Your task to perform on an android device: turn off improve location accuracy Image 0: 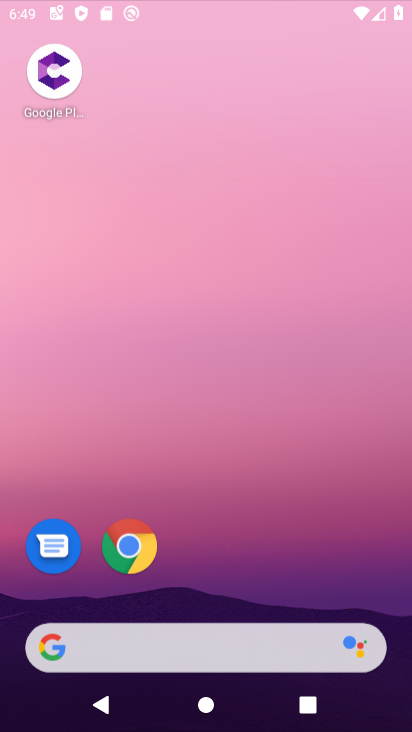
Step 0: click (191, 81)
Your task to perform on an android device: turn off improve location accuracy Image 1: 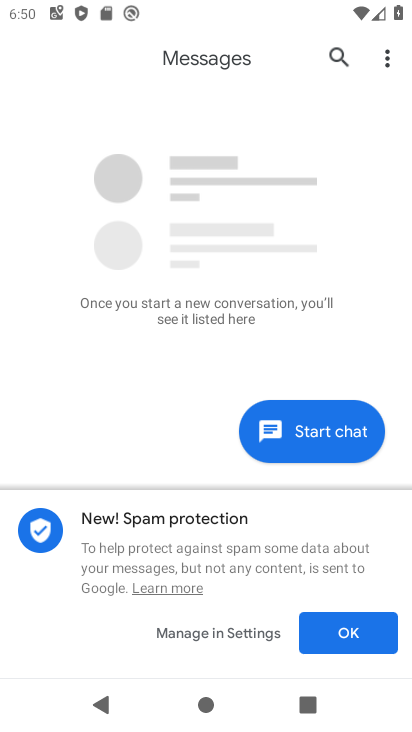
Step 1: press home button
Your task to perform on an android device: turn off improve location accuracy Image 2: 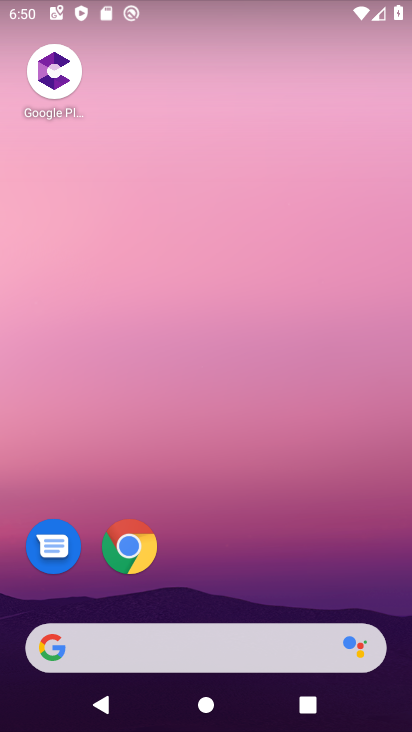
Step 2: drag from (252, 420) to (196, 37)
Your task to perform on an android device: turn off improve location accuracy Image 3: 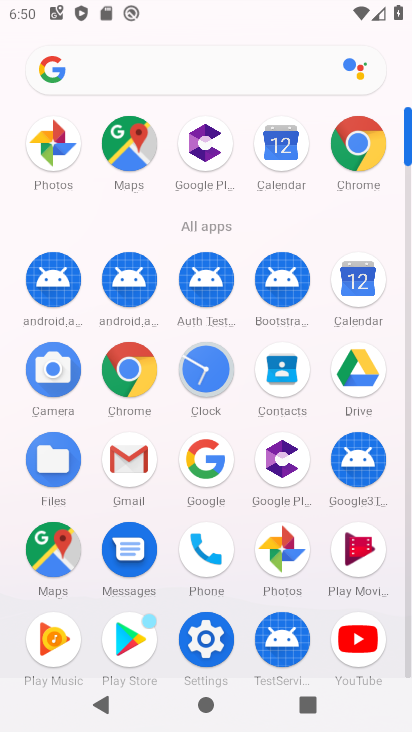
Step 3: click (205, 641)
Your task to perform on an android device: turn off improve location accuracy Image 4: 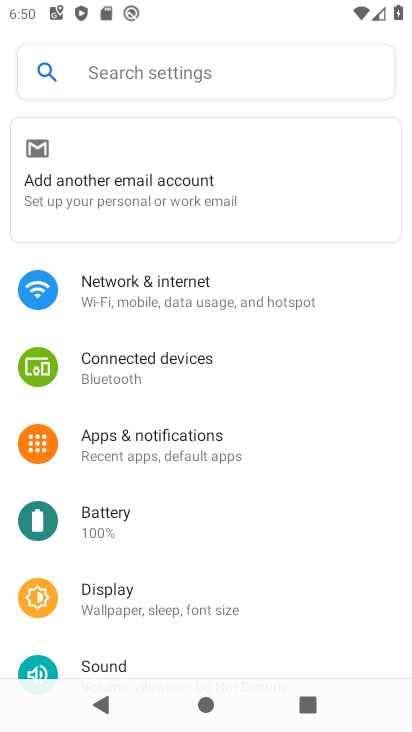
Step 4: drag from (179, 556) to (152, 244)
Your task to perform on an android device: turn off improve location accuracy Image 5: 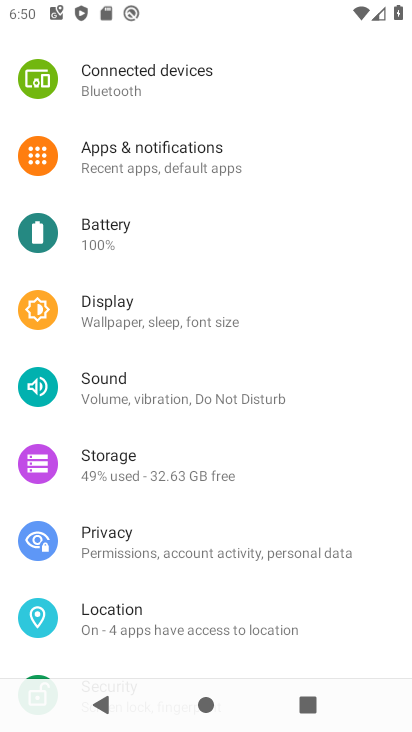
Step 5: click (115, 609)
Your task to perform on an android device: turn off improve location accuracy Image 6: 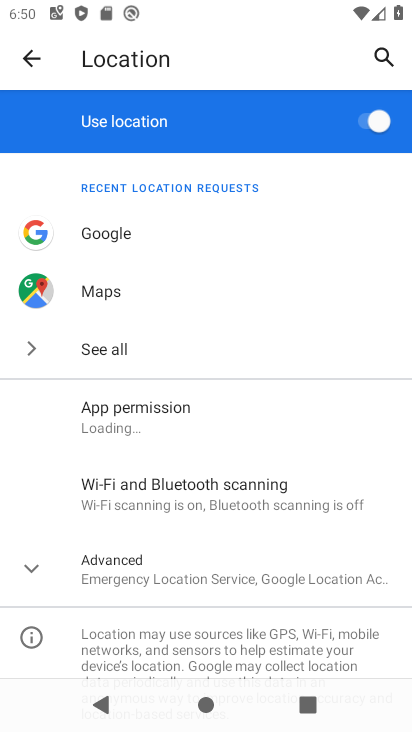
Step 6: click (33, 570)
Your task to perform on an android device: turn off improve location accuracy Image 7: 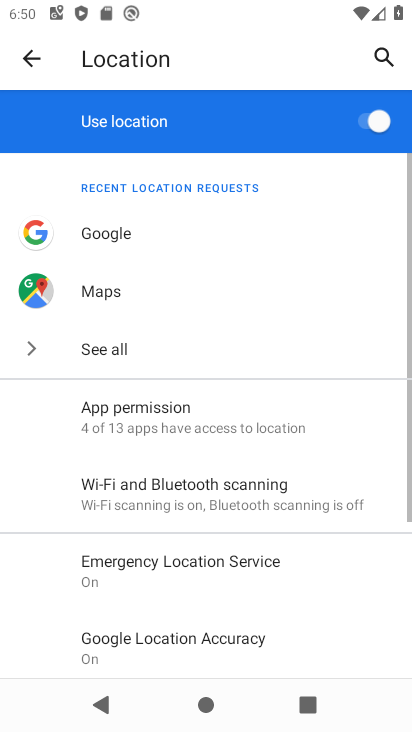
Step 7: drag from (224, 585) to (197, 432)
Your task to perform on an android device: turn off improve location accuracy Image 8: 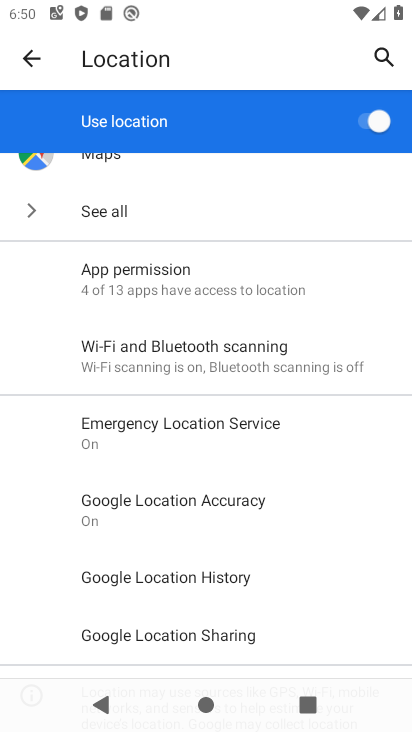
Step 8: click (196, 494)
Your task to perform on an android device: turn off improve location accuracy Image 9: 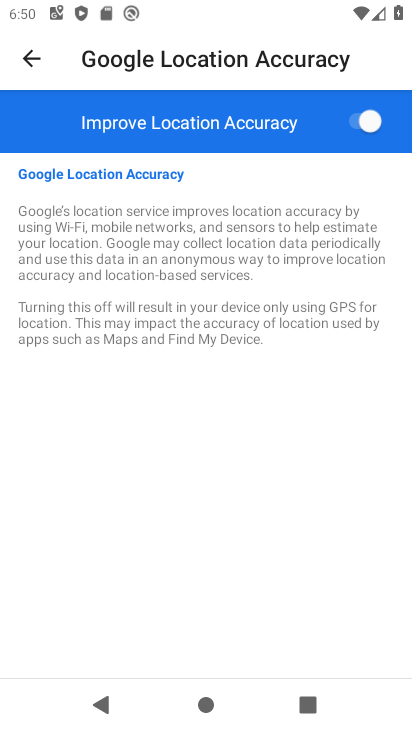
Step 9: click (366, 124)
Your task to perform on an android device: turn off improve location accuracy Image 10: 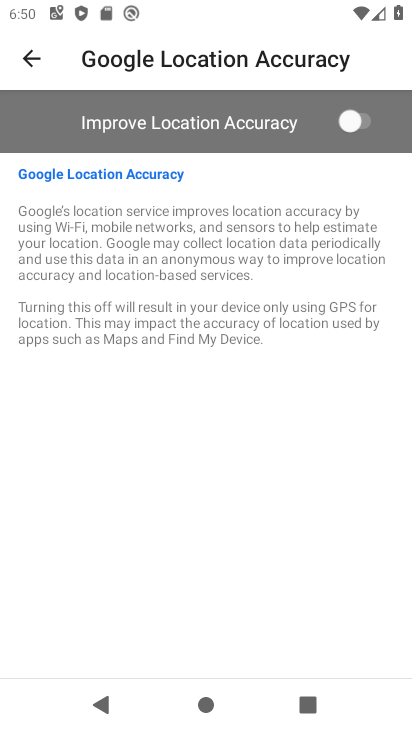
Step 10: task complete